Your task to perform on an android device: open app "Duolingo: language lessons" Image 0: 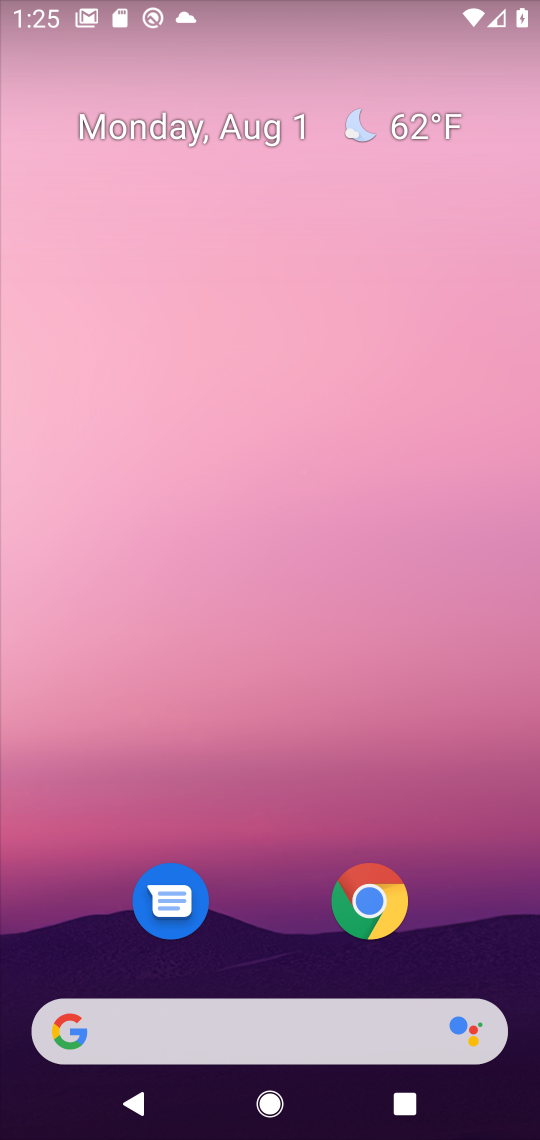
Step 0: press home button
Your task to perform on an android device: open app "Duolingo: language lessons" Image 1: 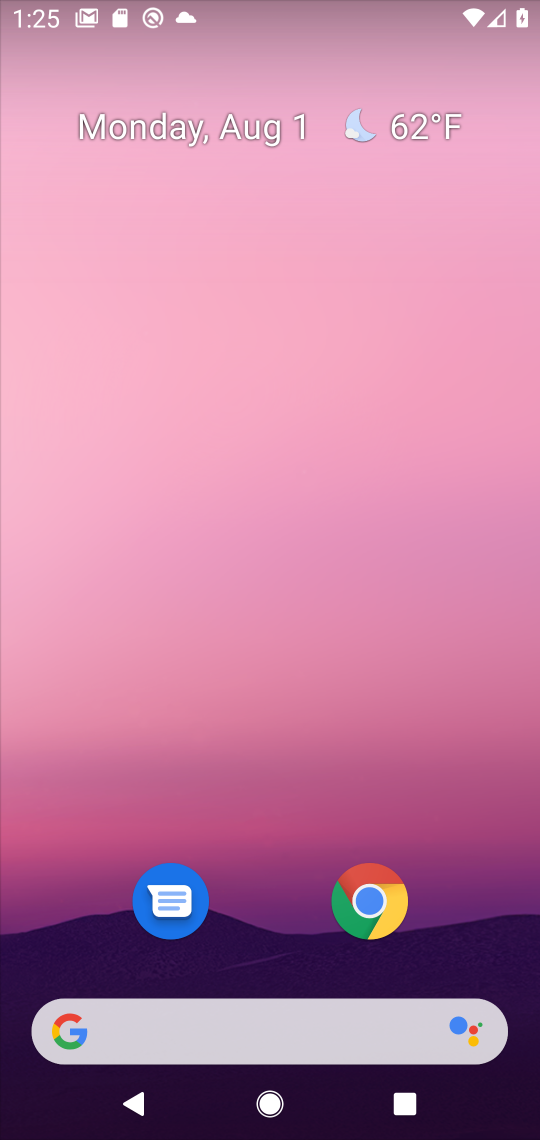
Step 1: drag from (268, 1032) to (450, 97)
Your task to perform on an android device: open app "Duolingo: language lessons" Image 2: 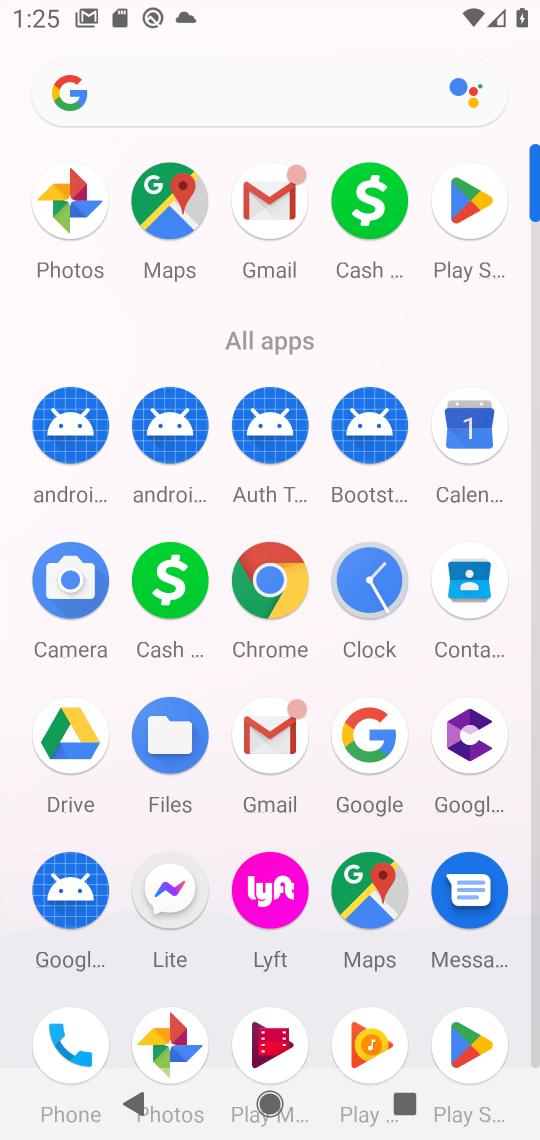
Step 2: click (453, 212)
Your task to perform on an android device: open app "Duolingo: language lessons" Image 3: 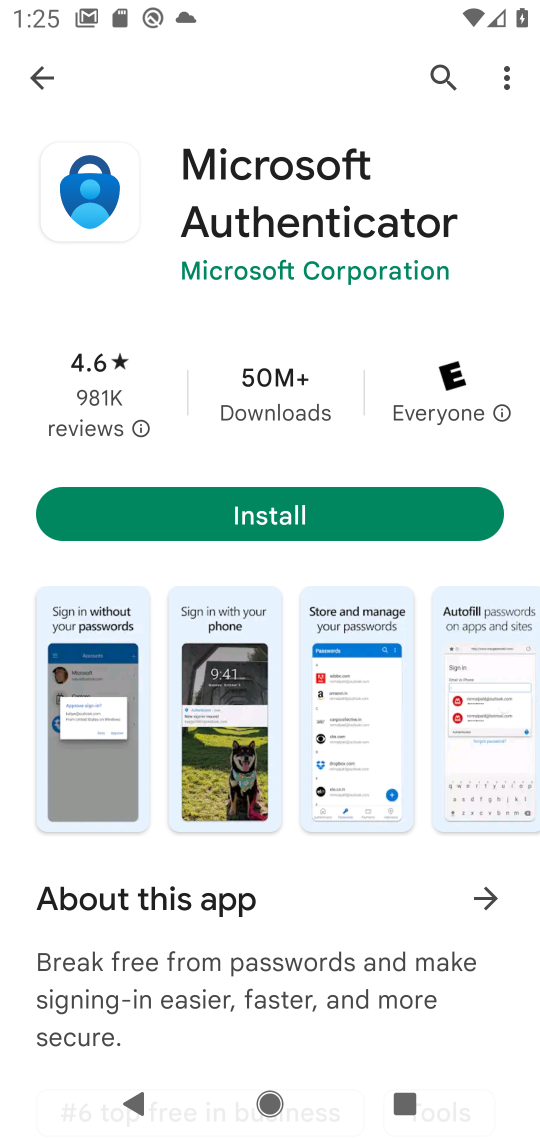
Step 3: click (432, 83)
Your task to perform on an android device: open app "Duolingo: language lessons" Image 4: 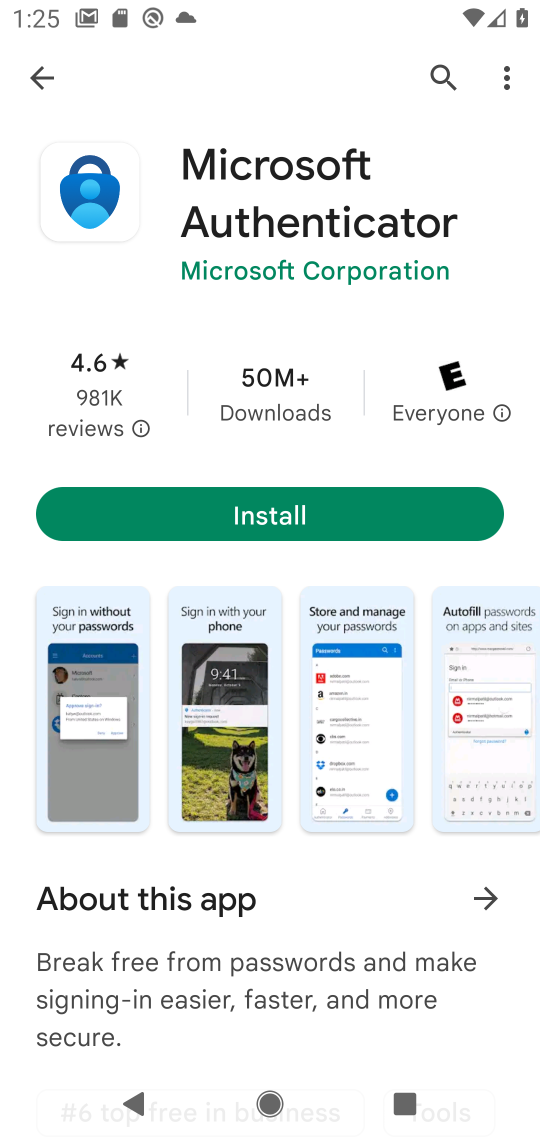
Step 4: click (433, 85)
Your task to perform on an android device: open app "Duolingo: language lessons" Image 5: 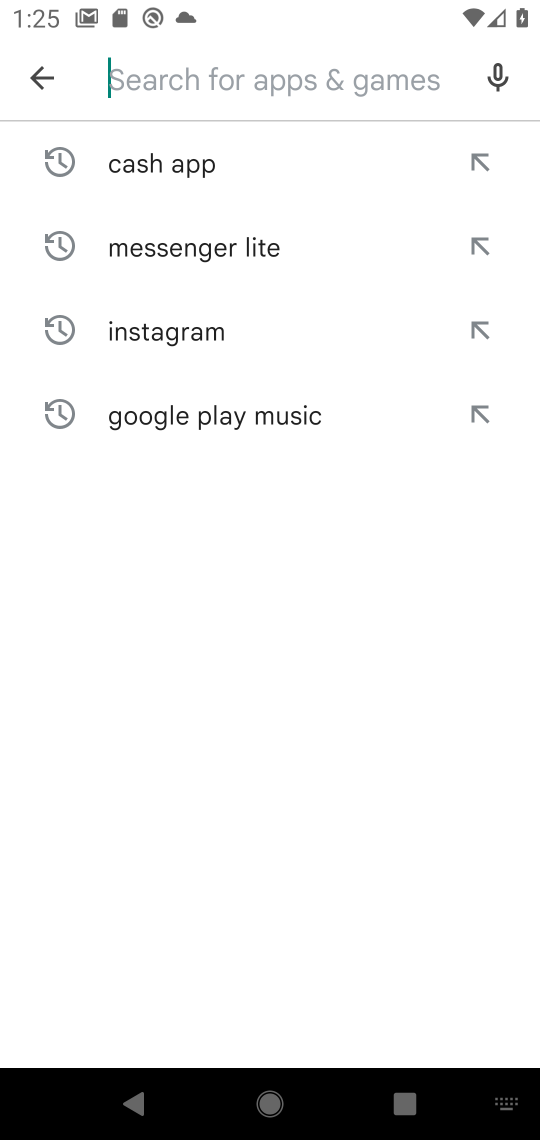
Step 5: type "Duolingo: language lessons"
Your task to perform on an android device: open app "Duolingo: language lessons" Image 6: 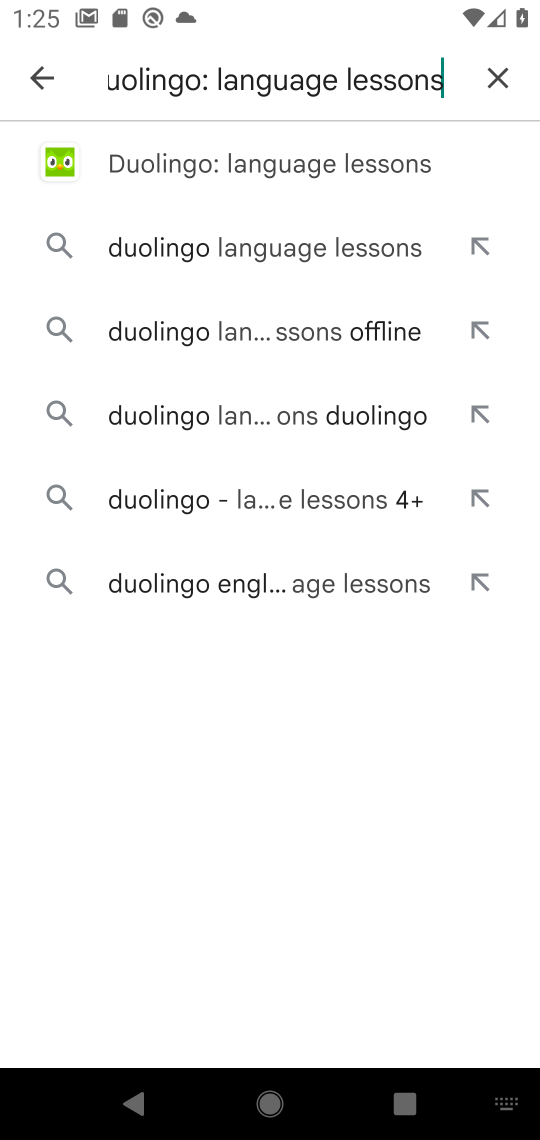
Step 6: click (336, 163)
Your task to perform on an android device: open app "Duolingo: language lessons" Image 7: 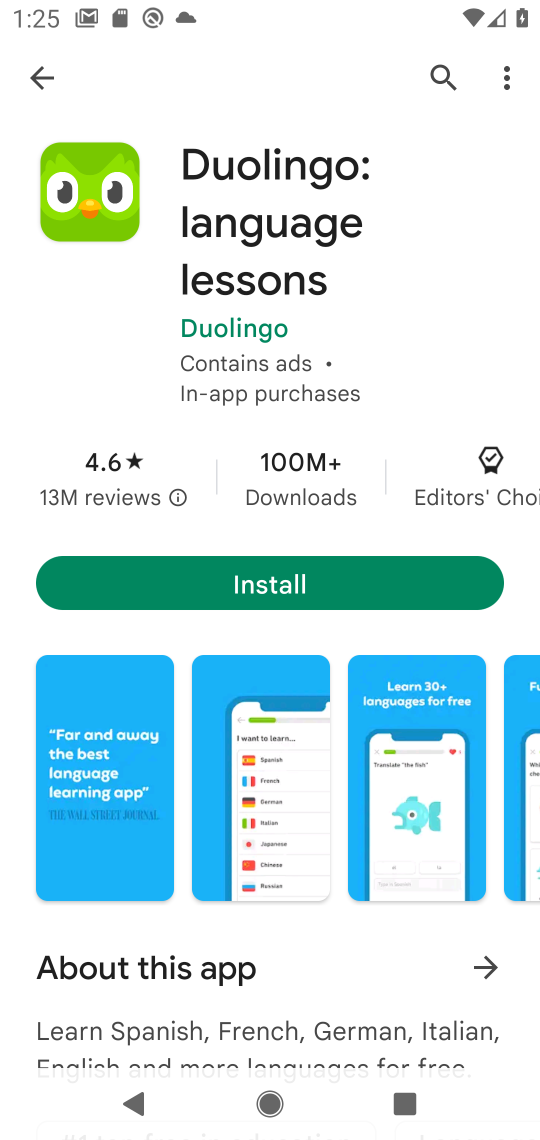
Step 7: task complete